Your task to perform on an android device: Go to privacy settings Image 0: 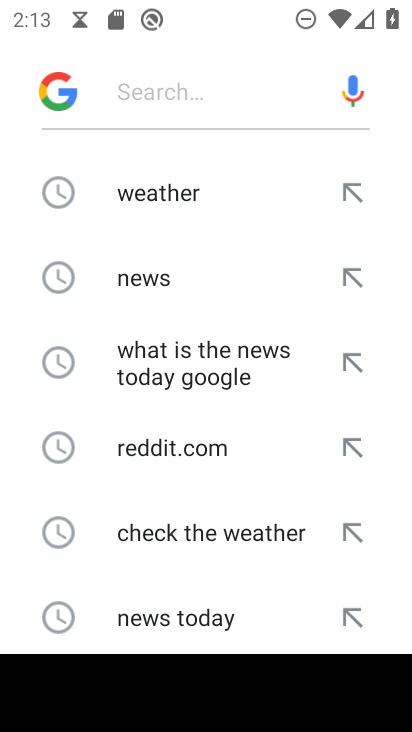
Step 0: press home button
Your task to perform on an android device: Go to privacy settings Image 1: 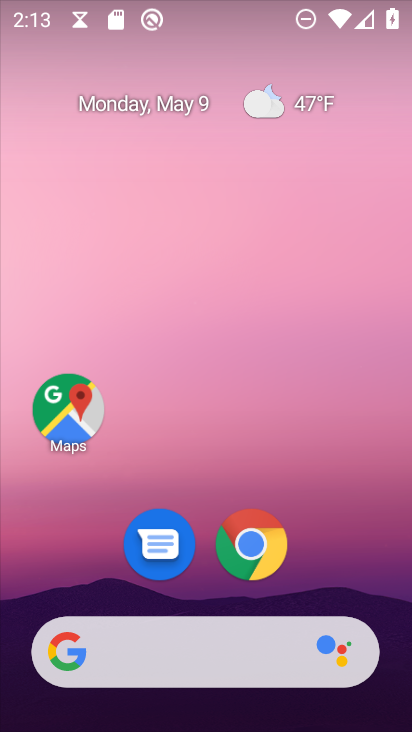
Step 1: drag from (365, 530) to (411, 105)
Your task to perform on an android device: Go to privacy settings Image 2: 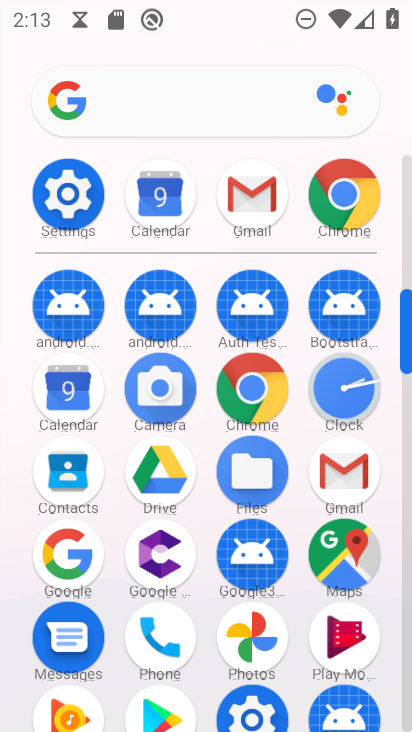
Step 2: click (89, 205)
Your task to perform on an android device: Go to privacy settings Image 3: 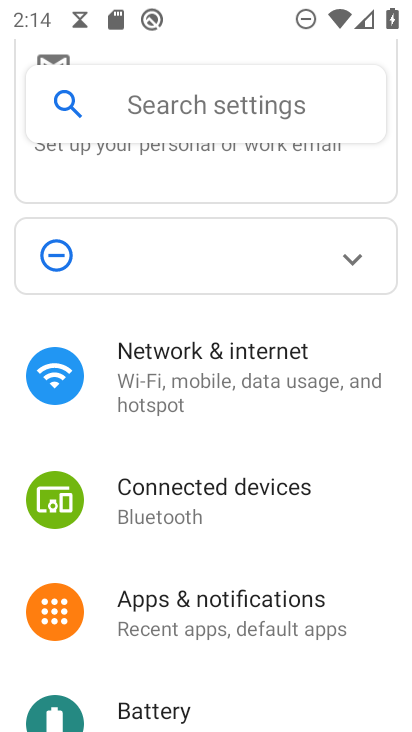
Step 3: drag from (202, 578) to (285, 207)
Your task to perform on an android device: Go to privacy settings Image 4: 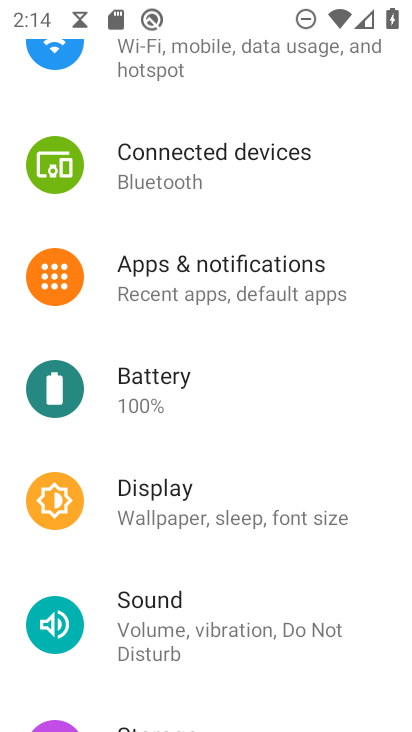
Step 4: drag from (261, 624) to (292, 239)
Your task to perform on an android device: Go to privacy settings Image 5: 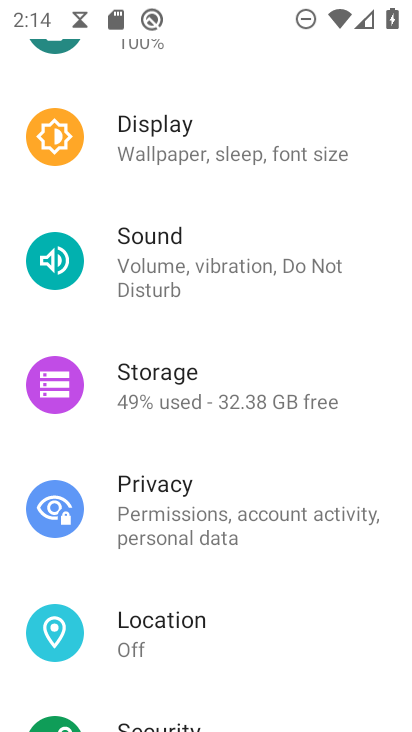
Step 5: click (213, 515)
Your task to perform on an android device: Go to privacy settings Image 6: 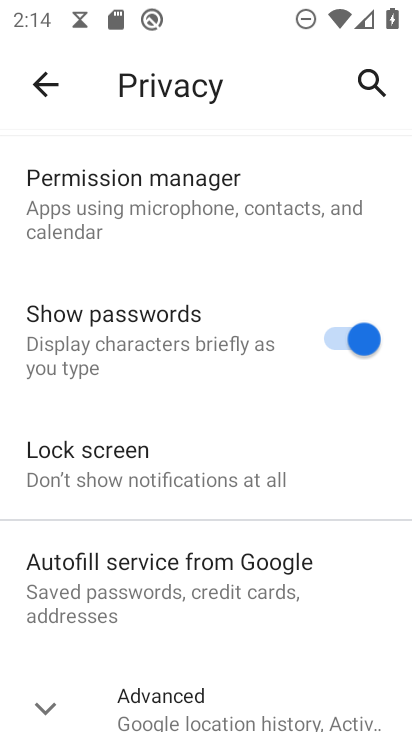
Step 6: task complete